Your task to perform on an android device: install app "AliExpress" Image 0: 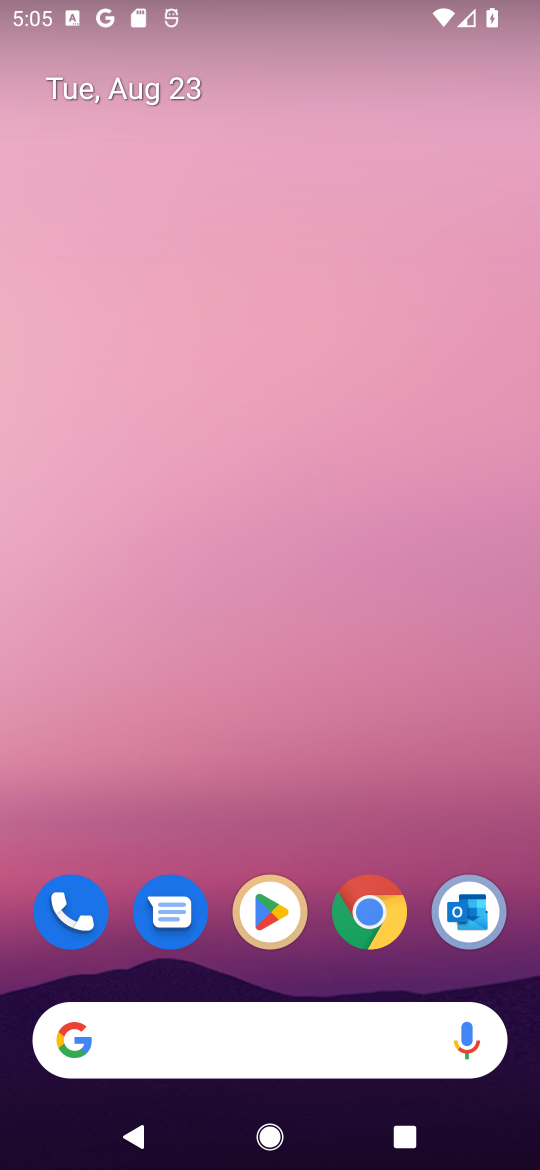
Step 0: drag from (211, 936) to (148, 194)
Your task to perform on an android device: install app "AliExpress" Image 1: 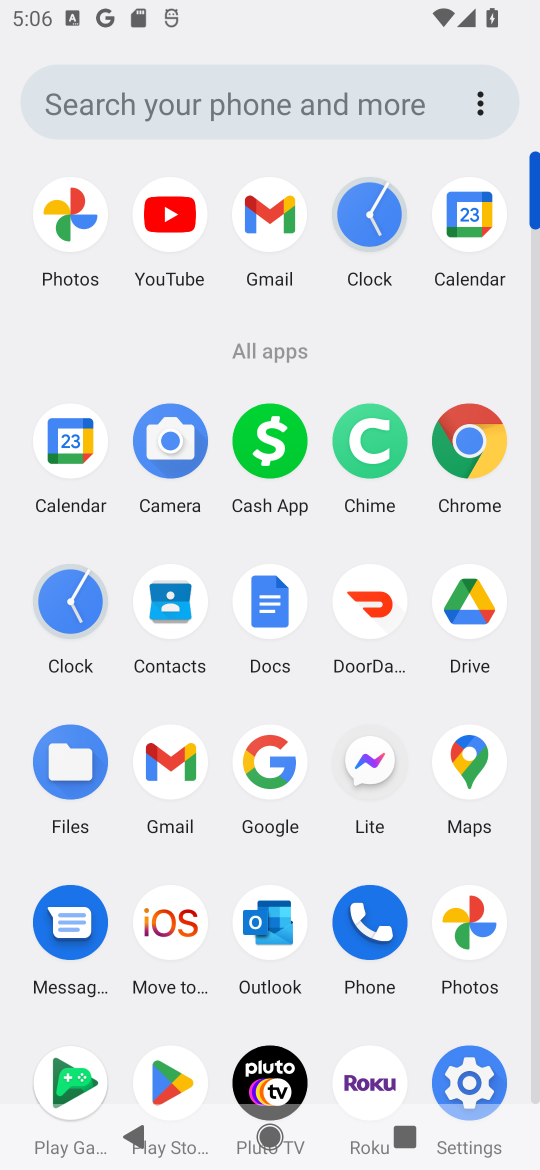
Step 1: click (162, 1075)
Your task to perform on an android device: install app "AliExpress" Image 2: 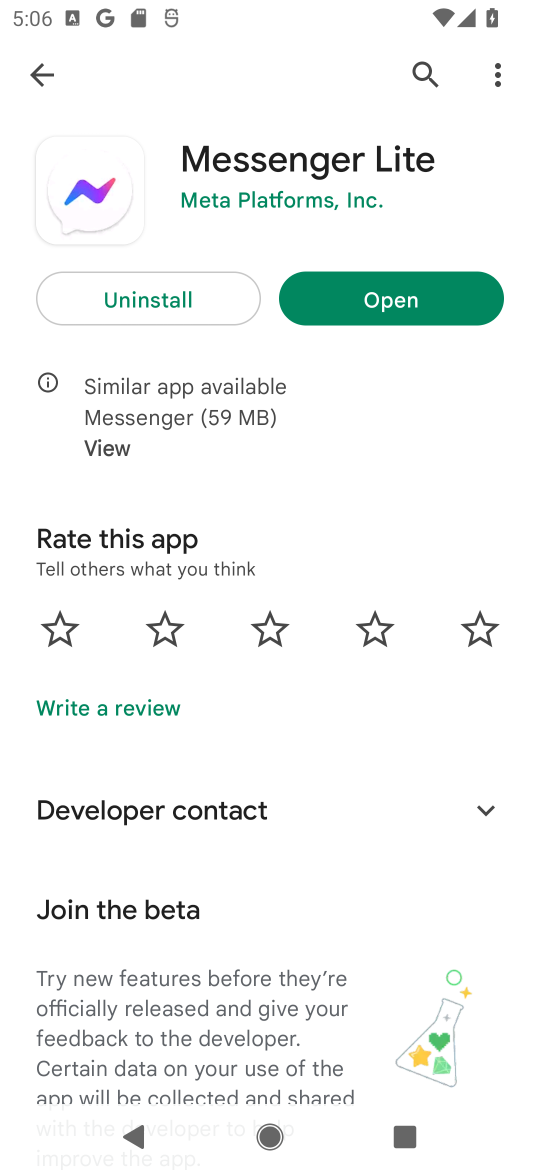
Step 2: click (64, 62)
Your task to perform on an android device: install app "AliExpress" Image 3: 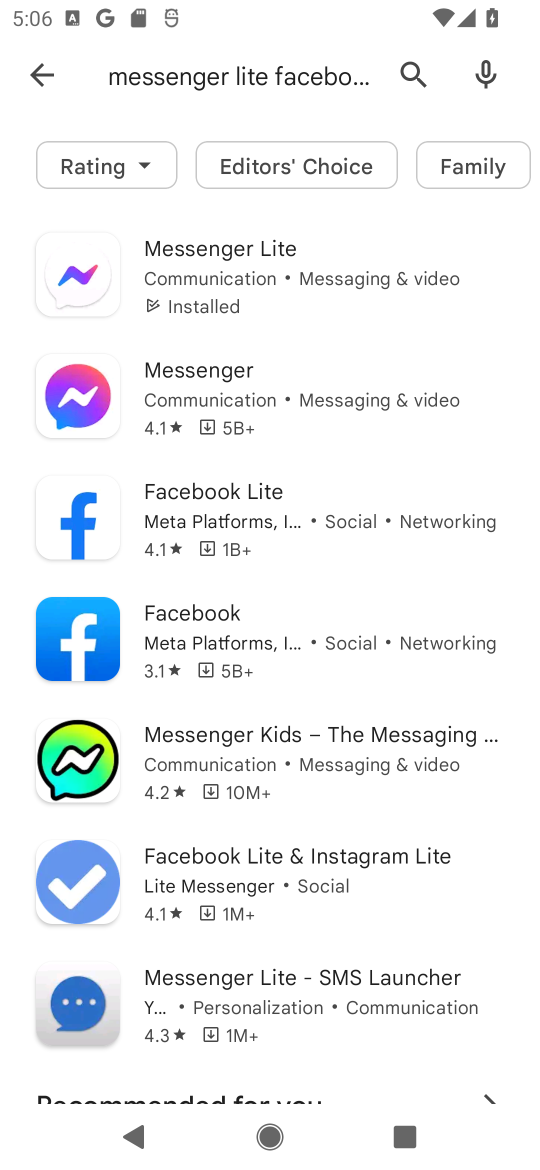
Step 3: click (70, 70)
Your task to perform on an android device: install app "AliExpress" Image 4: 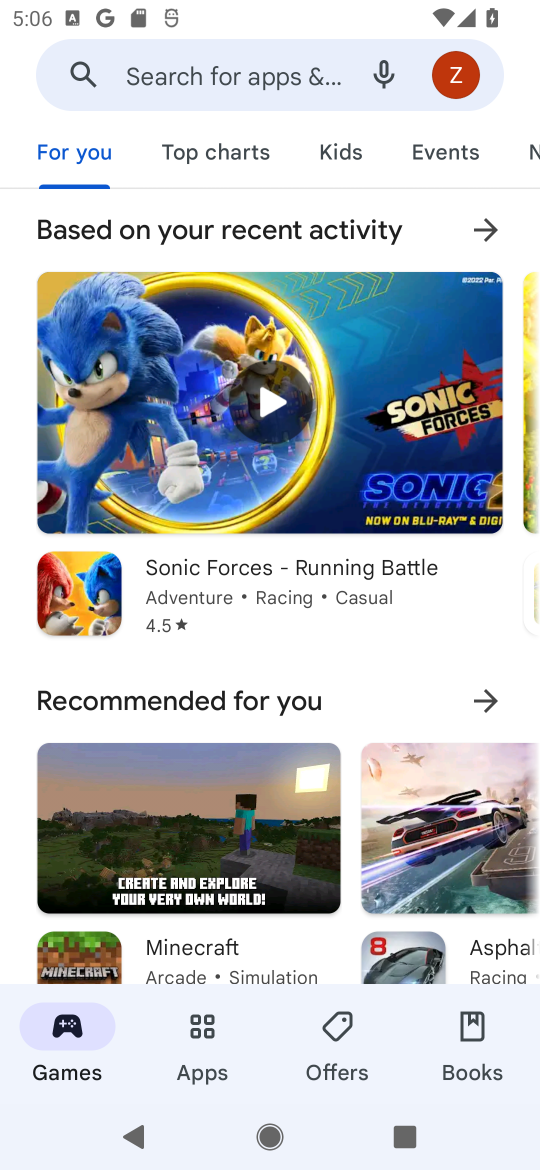
Step 4: click (214, 77)
Your task to perform on an android device: install app "AliExpress" Image 5: 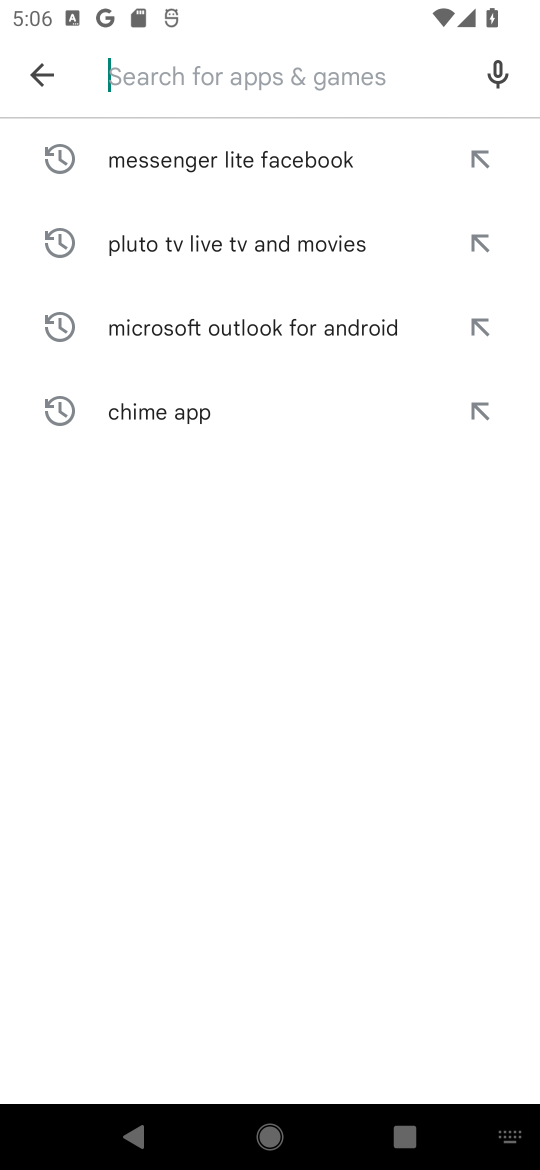
Step 5: type "AliExpress "
Your task to perform on an android device: install app "AliExpress" Image 6: 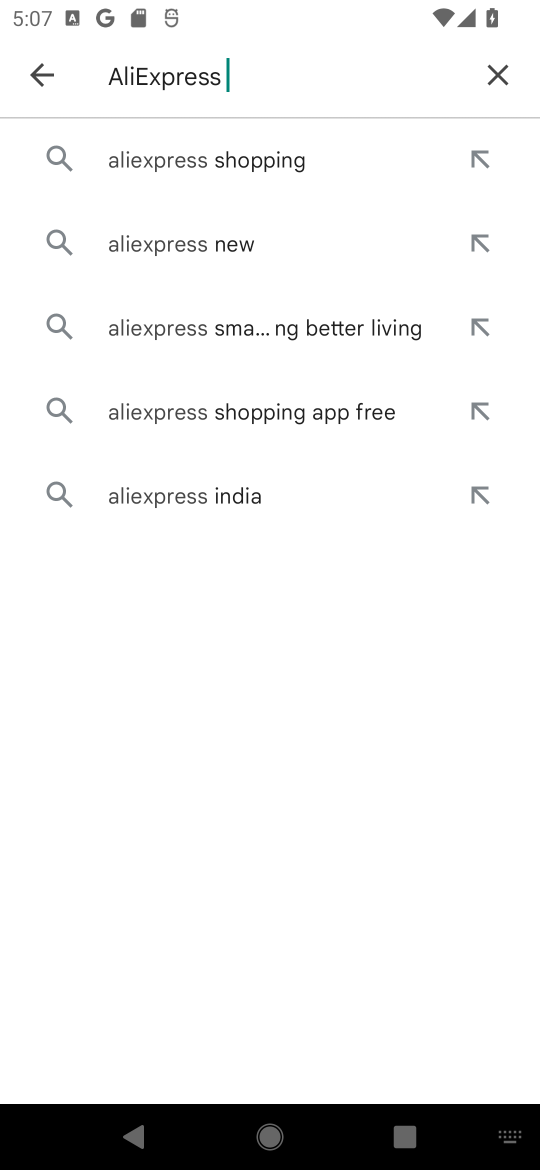
Step 6: click (188, 157)
Your task to perform on an android device: install app "AliExpress" Image 7: 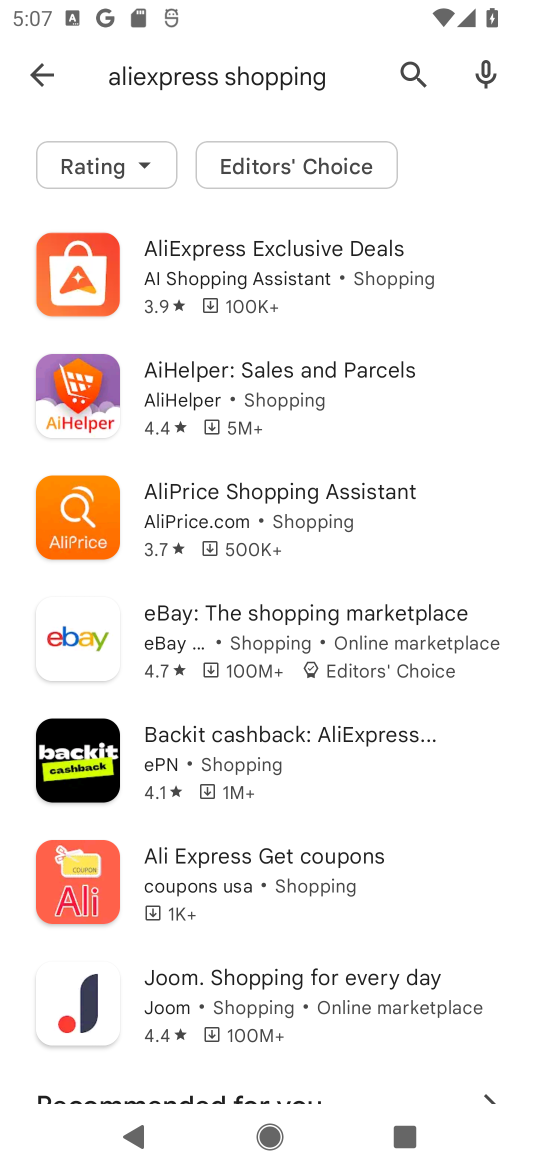
Step 7: click (187, 262)
Your task to perform on an android device: install app "AliExpress" Image 8: 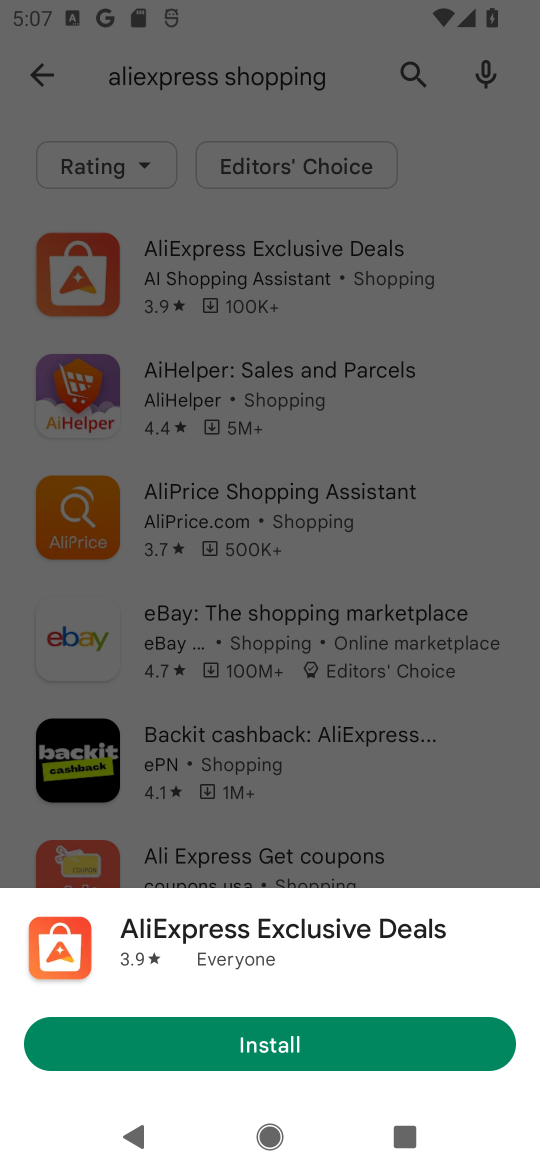
Step 8: click (330, 1037)
Your task to perform on an android device: install app "AliExpress" Image 9: 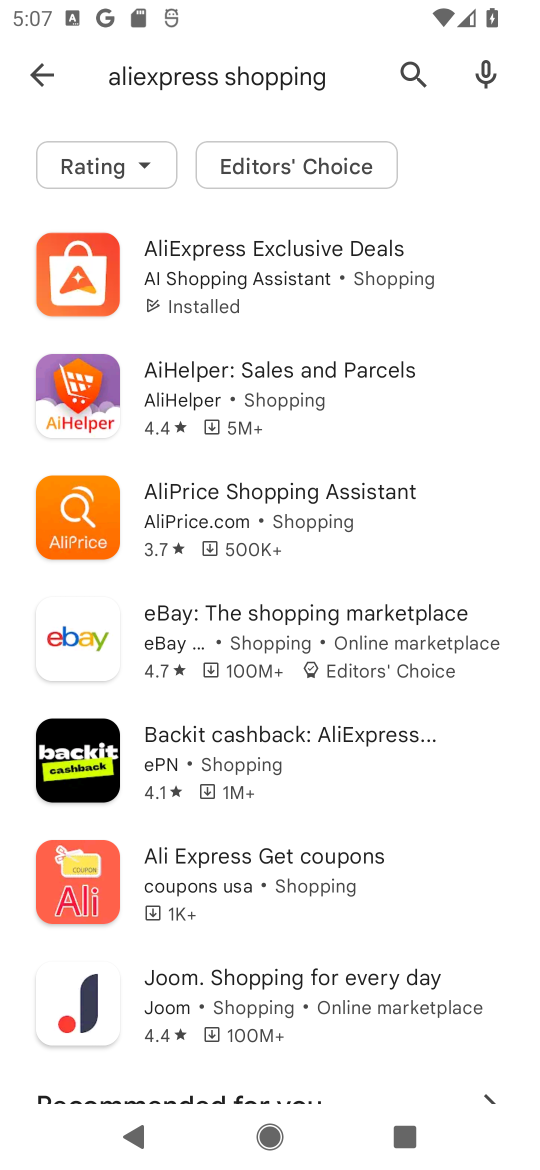
Step 9: click (206, 299)
Your task to perform on an android device: install app "AliExpress" Image 10: 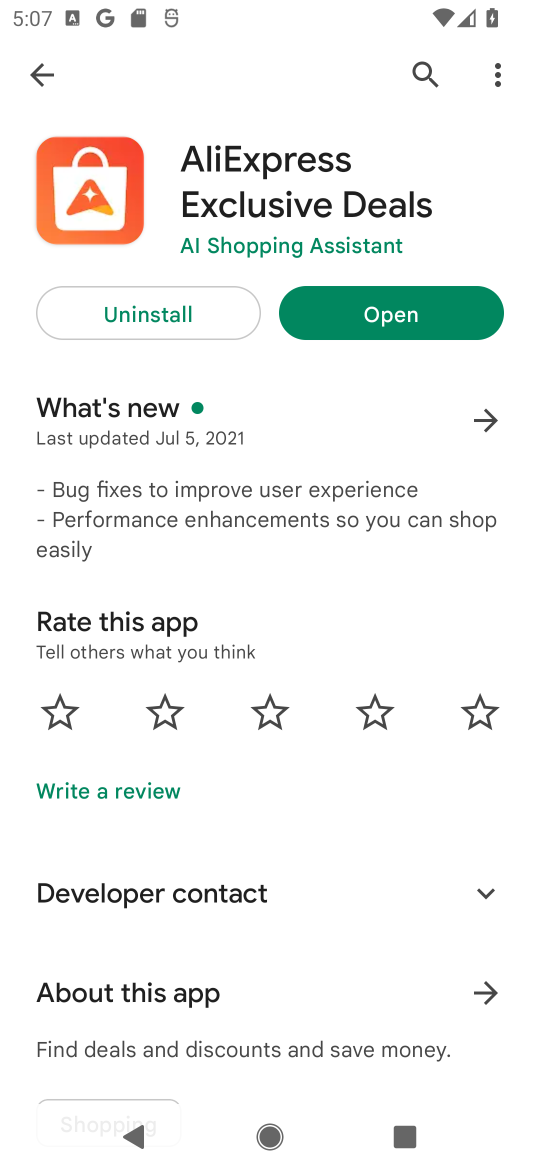
Step 10: click (355, 305)
Your task to perform on an android device: install app "AliExpress" Image 11: 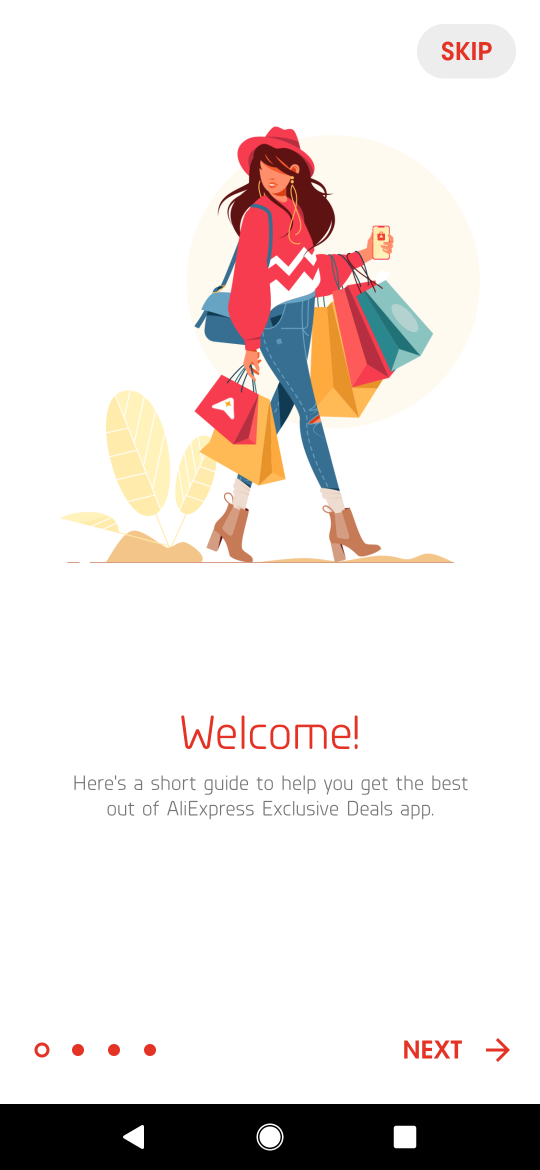
Step 11: click (449, 1077)
Your task to perform on an android device: install app "AliExpress" Image 12: 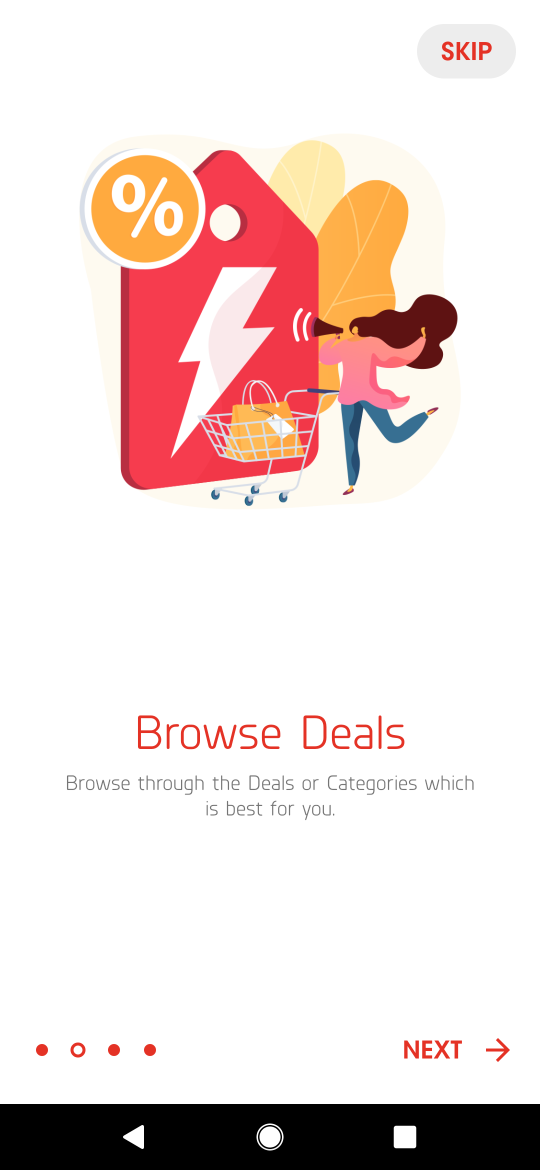
Step 12: task complete